Your task to perform on an android device: Open my contact list Image 0: 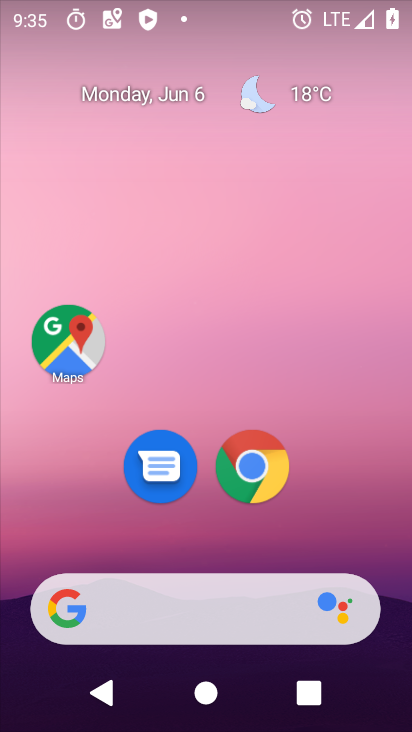
Step 0: click (243, 174)
Your task to perform on an android device: Open my contact list Image 1: 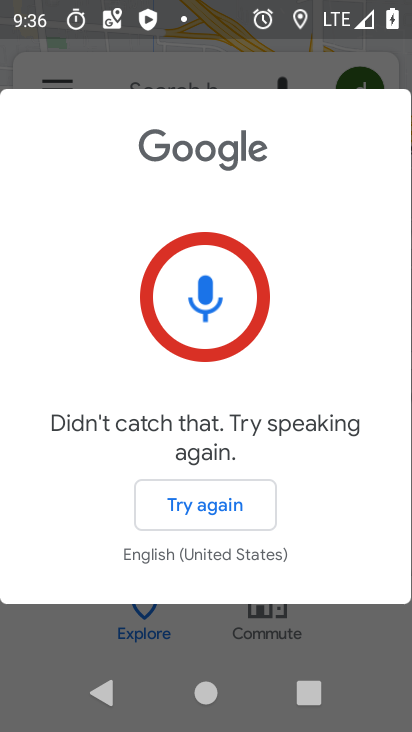
Step 1: press back button
Your task to perform on an android device: Open my contact list Image 2: 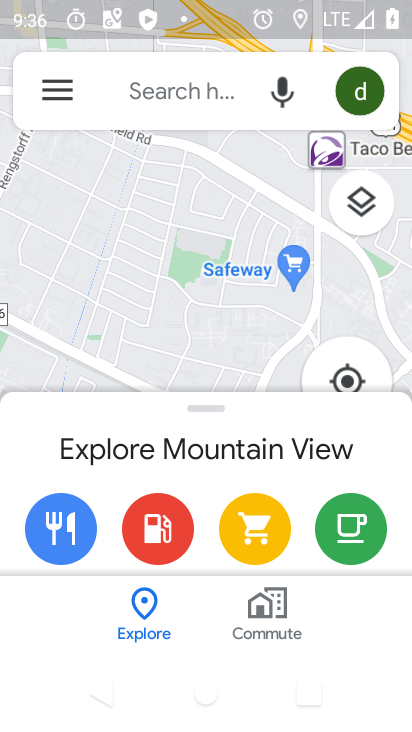
Step 2: press home button
Your task to perform on an android device: Open my contact list Image 3: 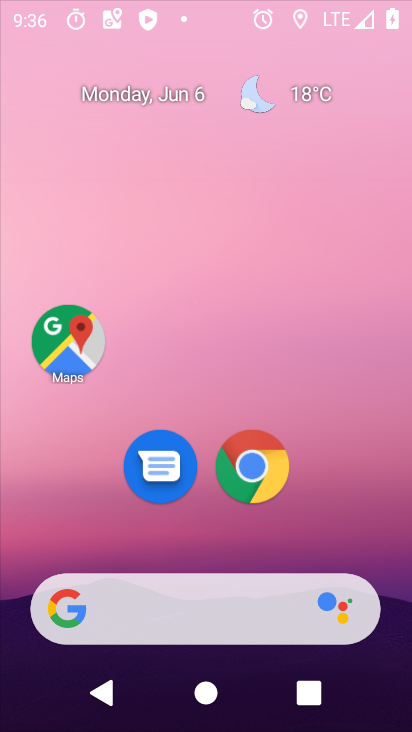
Step 3: drag from (214, 524) to (249, 14)
Your task to perform on an android device: Open my contact list Image 4: 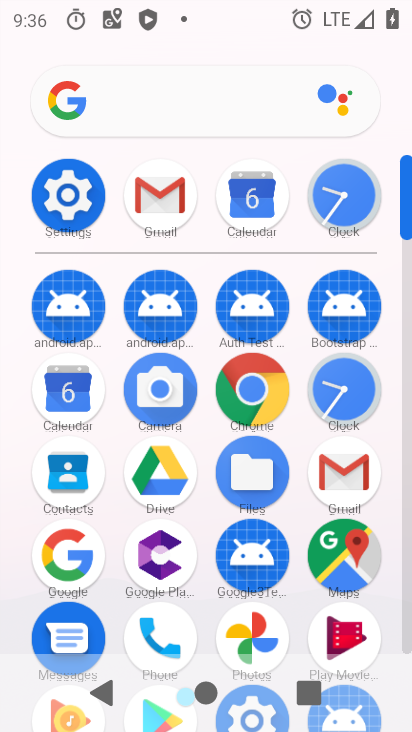
Step 4: click (72, 471)
Your task to perform on an android device: Open my contact list Image 5: 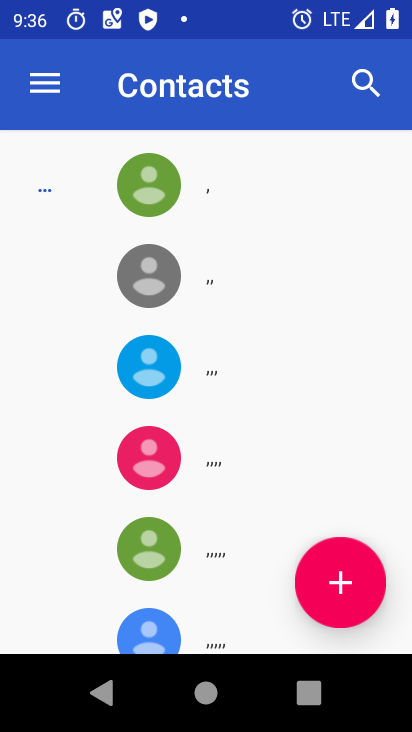
Step 5: task complete